Your task to perform on an android device: Toggle the flashlight Image 0: 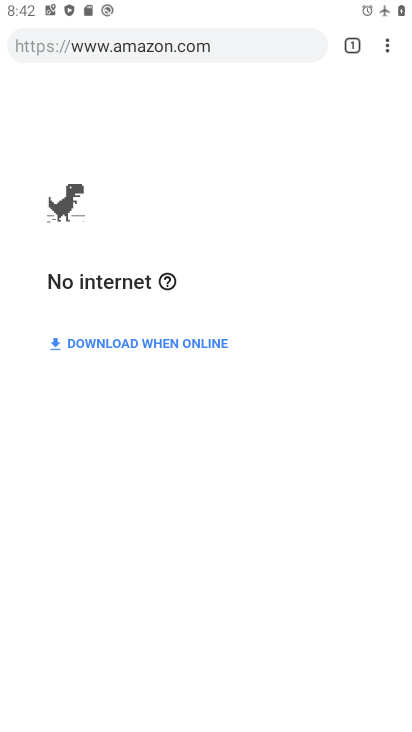
Step 0: press home button
Your task to perform on an android device: Toggle the flashlight Image 1: 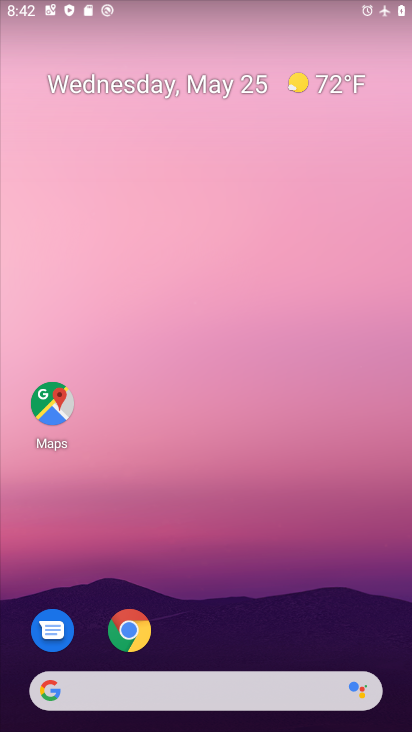
Step 1: drag from (235, 654) to (213, 119)
Your task to perform on an android device: Toggle the flashlight Image 2: 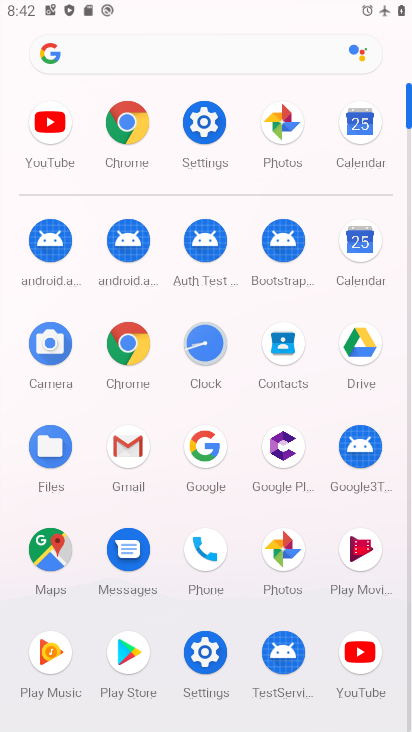
Step 2: click (203, 150)
Your task to perform on an android device: Toggle the flashlight Image 3: 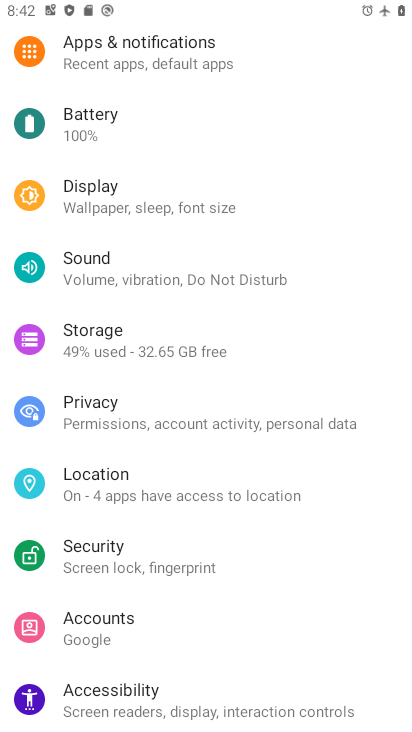
Step 3: task complete